Your task to perform on an android device: set an alarm Image 0: 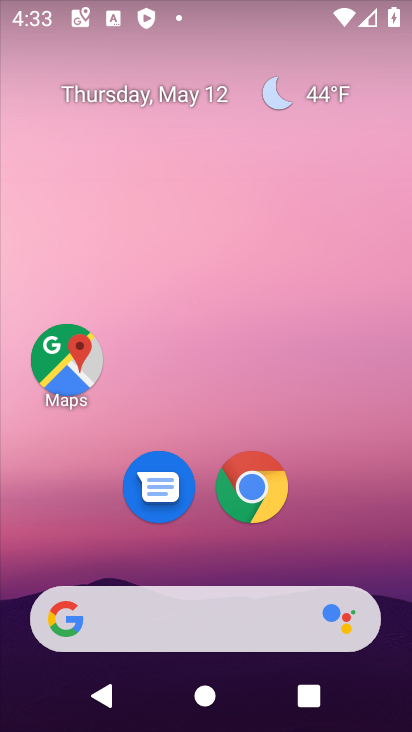
Step 0: drag from (279, 465) to (321, 141)
Your task to perform on an android device: set an alarm Image 1: 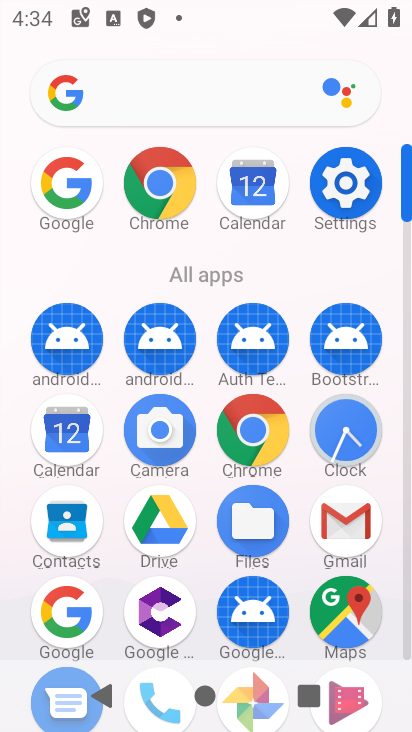
Step 1: drag from (209, 568) to (195, 327)
Your task to perform on an android device: set an alarm Image 2: 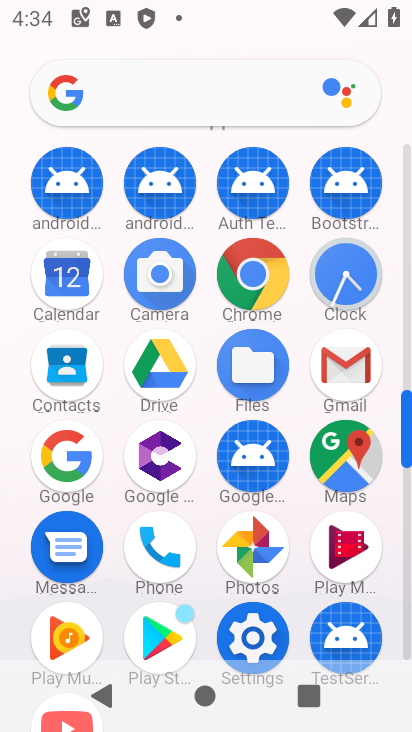
Step 2: click (351, 274)
Your task to perform on an android device: set an alarm Image 3: 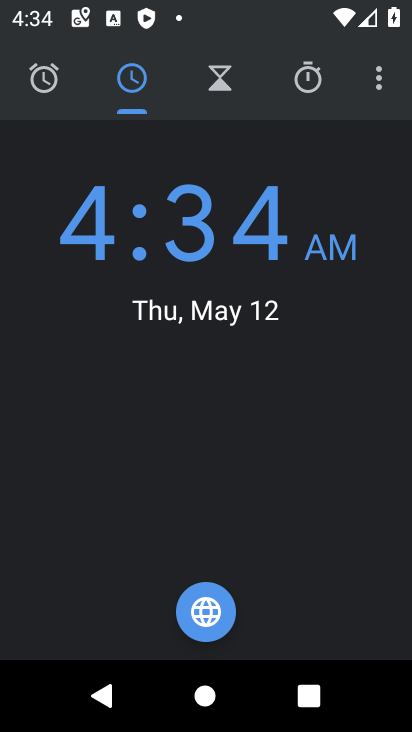
Step 3: click (31, 73)
Your task to perform on an android device: set an alarm Image 4: 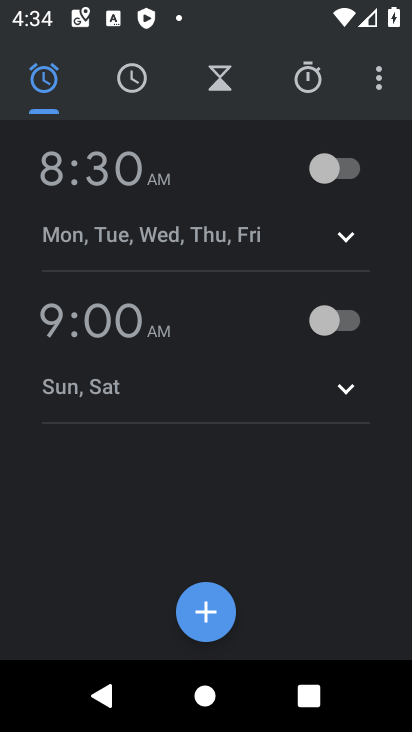
Step 4: click (326, 172)
Your task to perform on an android device: set an alarm Image 5: 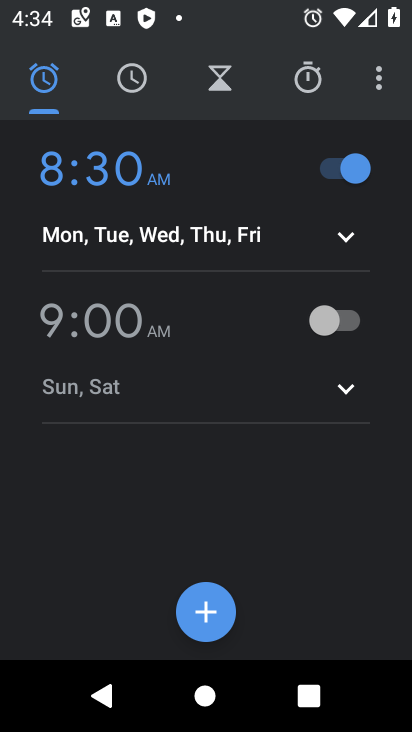
Step 5: task complete